Your task to perform on an android device: visit the assistant section in the google photos Image 0: 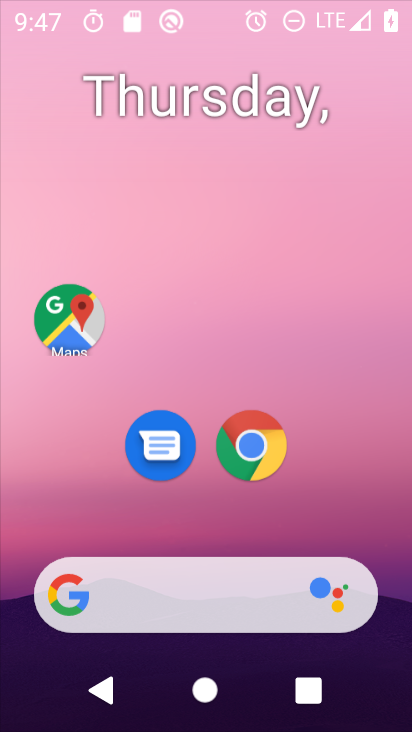
Step 0: drag from (215, 548) to (215, 128)
Your task to perform on an android device: visit the assistant section in the google photos Image 1: 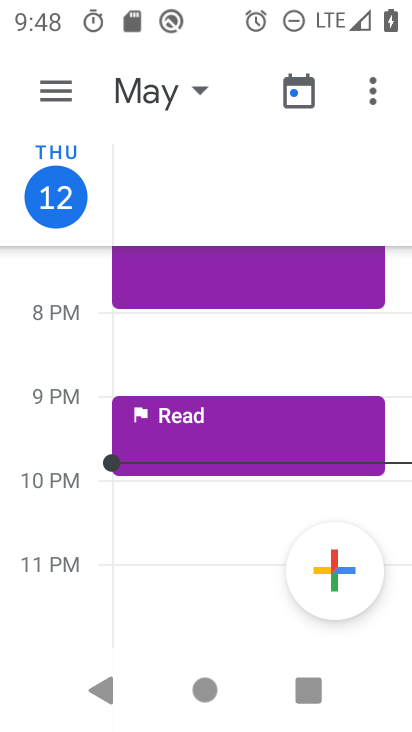
Step 1: press home button
Your task to perform on an android device: visit the assistant section in the google photos Image 2: 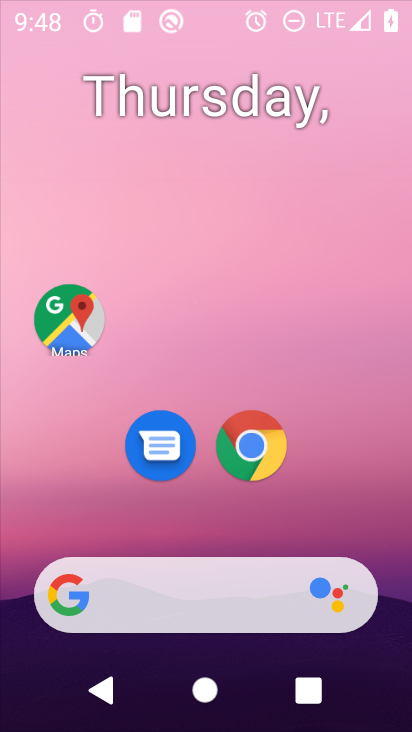
Step 2: drag from (284, 567) to (285, 12)
Your task to perform on an android device: visit the assistant section in the google photos Image 3: 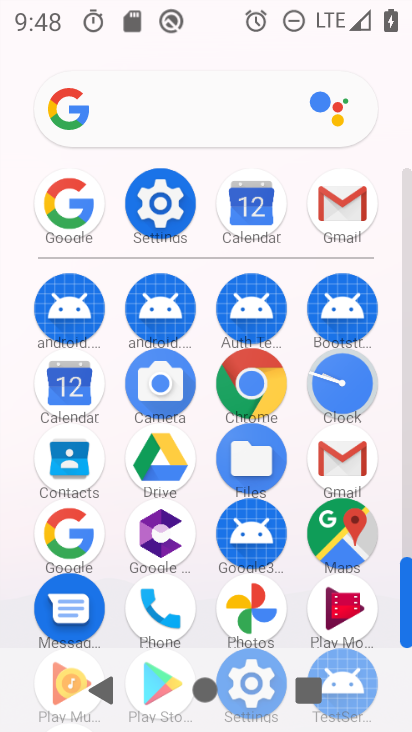
Step 3: click (241, 599)
Your task to perform on an android device: visit the assistant section in the google photos Image 4: 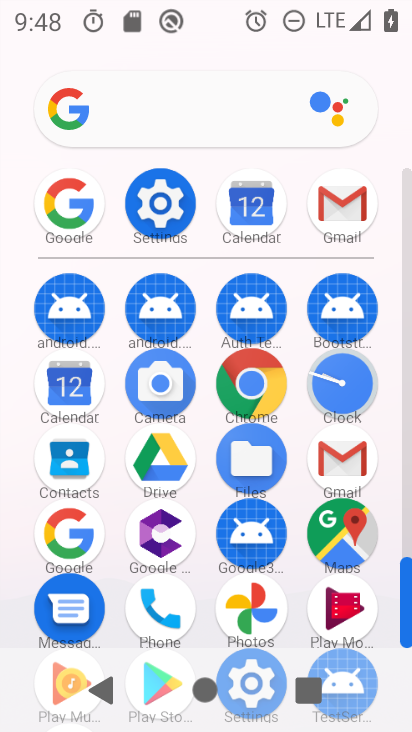
Step 4: click (249, 588)
Your task to perform on an android device: visit the assistant section in the google photos Image 5: 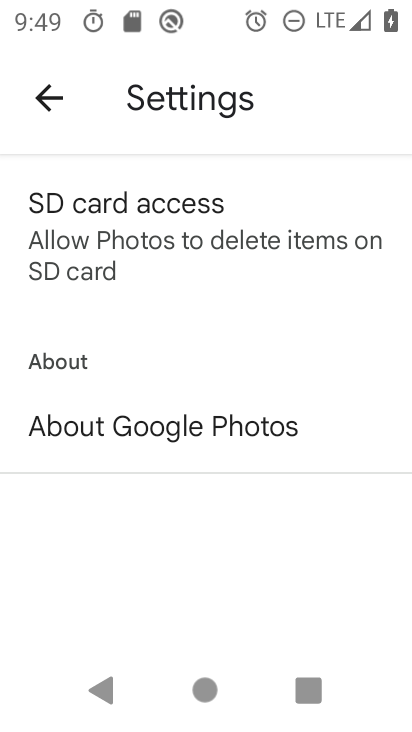
Step 5: drag from (116, 503) to (270, 111)
Your task to perform on an android device: visit the assistant section in the google photos Image 6: 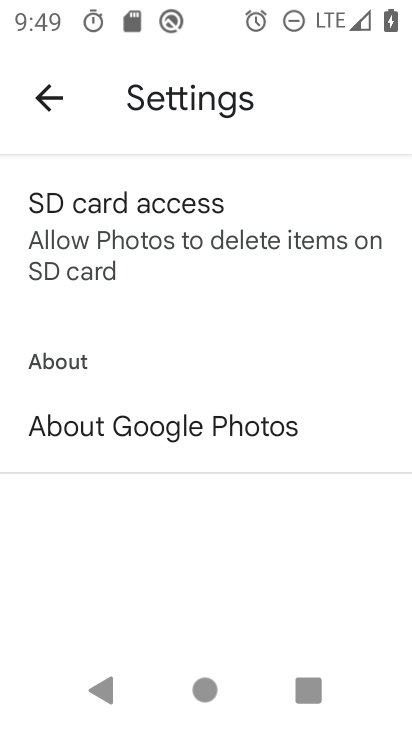
Step 6: click (46, 92)
Your task to perform on an android device: visit the assistant section in the google photos Image 7: 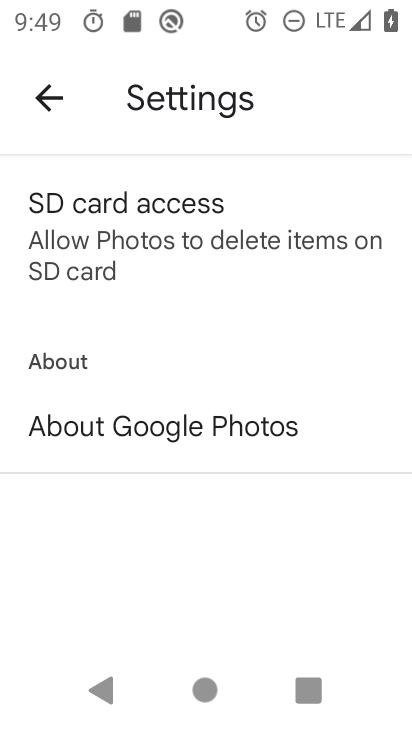
Step 7: click (46, 92)
Your task to perform on an android device: visit the assistant section in the google photos Image 8: 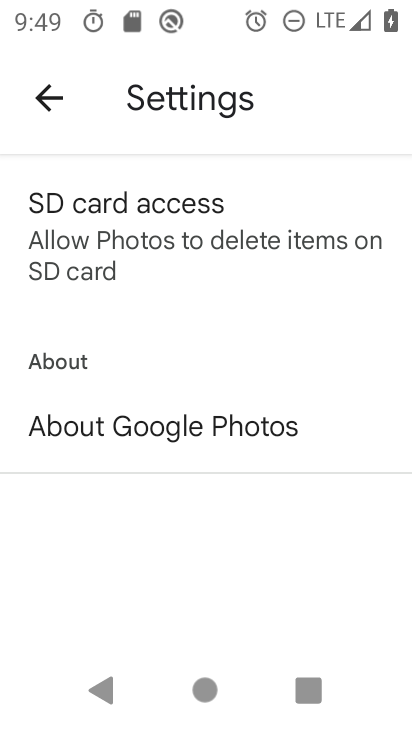
Step 8: press back button
Your task to perform on an android device: visit the assistant section in the google photos Image 9: 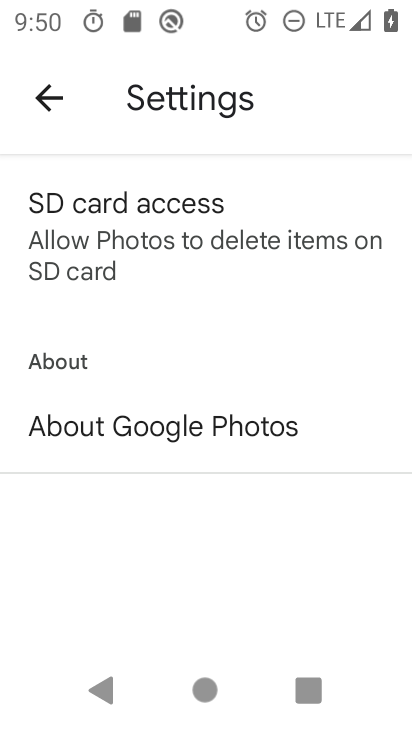
Step 9: press home button
Your task to perform on an android device: visit the assistant section in the google photos Image 10: 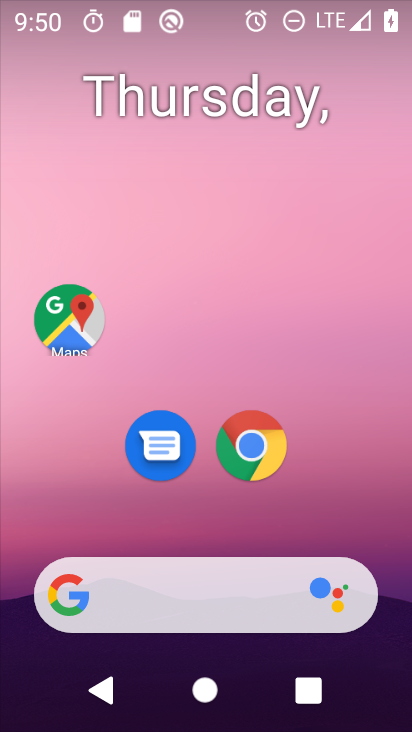
Step 10: drag from (238, 495) to (205, 111)
Your task to perform on an android device: visit the assistant section in the google photos Image 11: 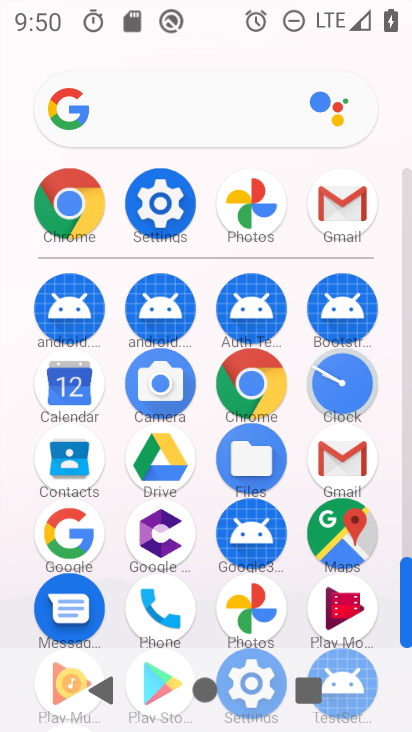
Step 11: click (245, 606)
Your task to perform on an android device: visit the assistant section in the google photos Image 12: 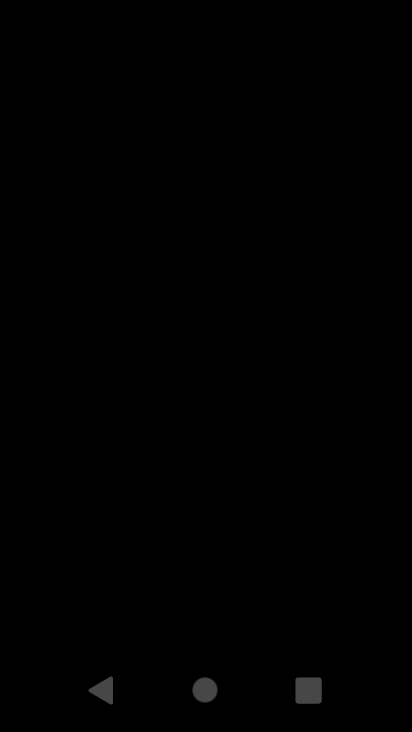
Step 12: press home button
Your task to perform on an android device: visit the assistant section in the google photos Image 13: 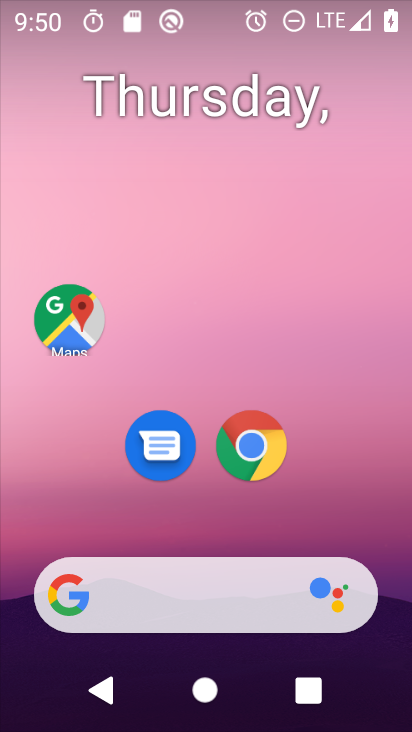
Step 13: drag from (205, 524) to (240, 157)
Your task to perform on an android device: visit the assistant section in the google photos Image 14: 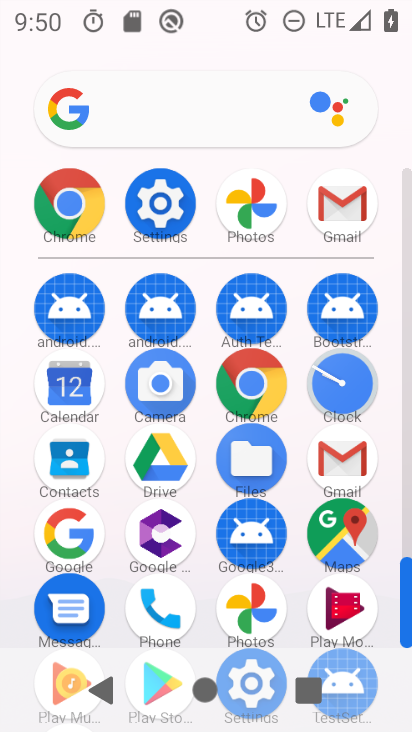
Step 14: click (259, 599)
Your task to perform on an android device: visit the assistant section in the google photos Image 15: 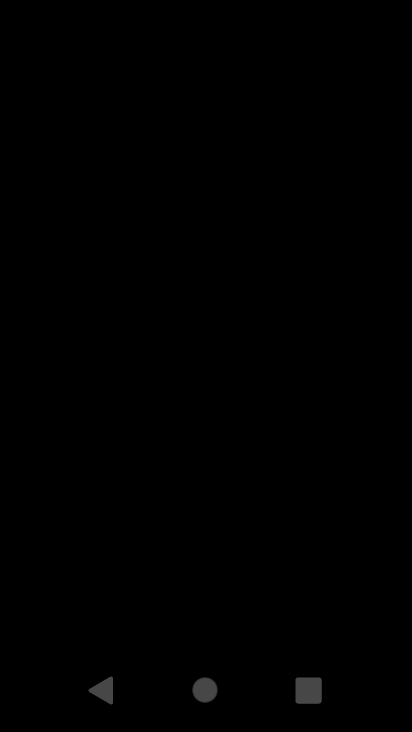
Step 15: task complete